Your task to perform on an android device: check storage Image 0: 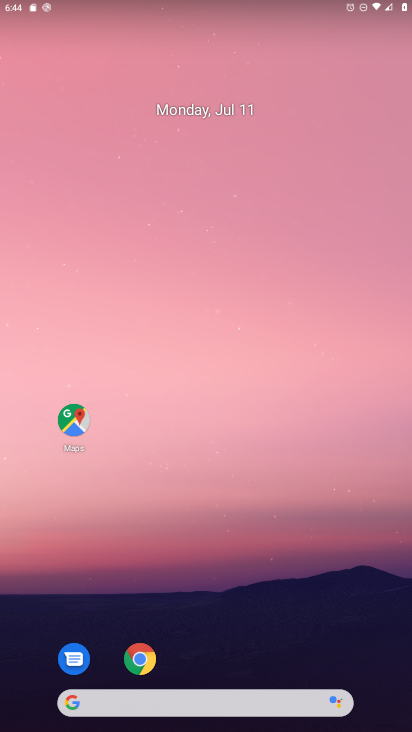
Step 0: drag from (379, 642) to (351, 113)
Your task to perform on an android device: check storage Image 1: 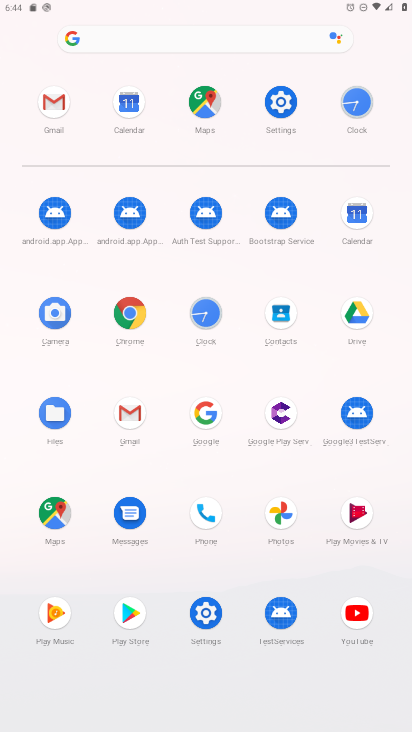
Step 1: click (203, 610)
Your task to perform on an android device: check storage Image 2: 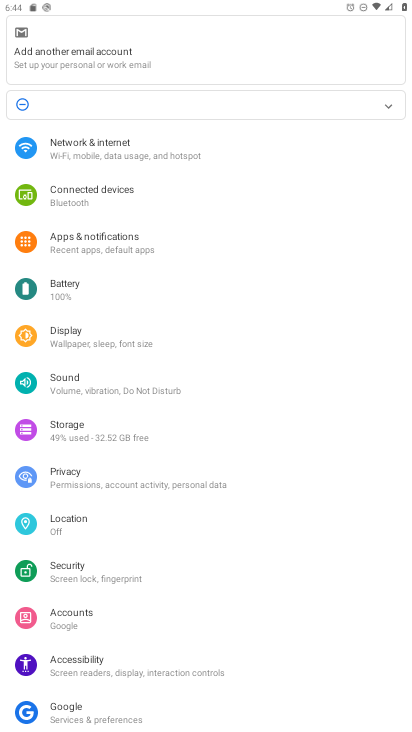
Step 2: click (75, 429)
Your task to perform on an android device: check storage Image 3: 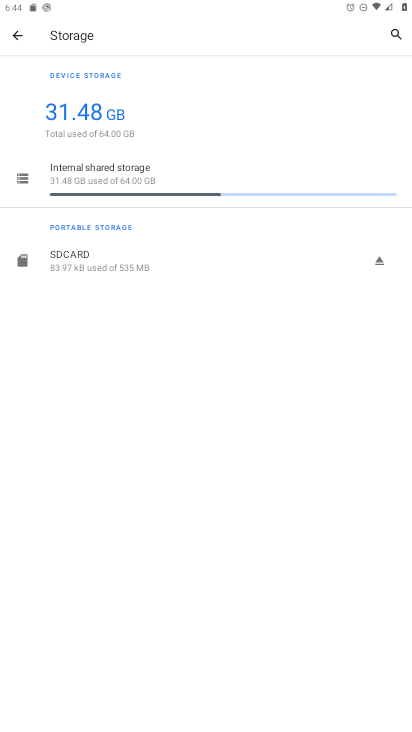
Step 3: task complete